Your task to perform on an android device: open chrome and create a bookmark for the current page Image 0: 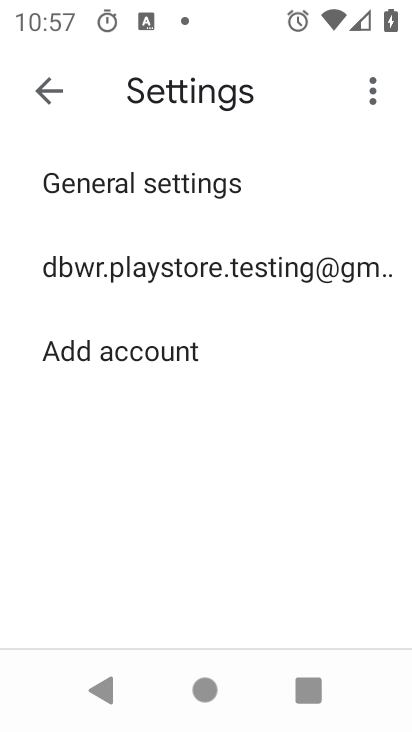
Step 0: press home button
Your task to perform on an android device: open chrome and create a bookmark for the current page Image 1: 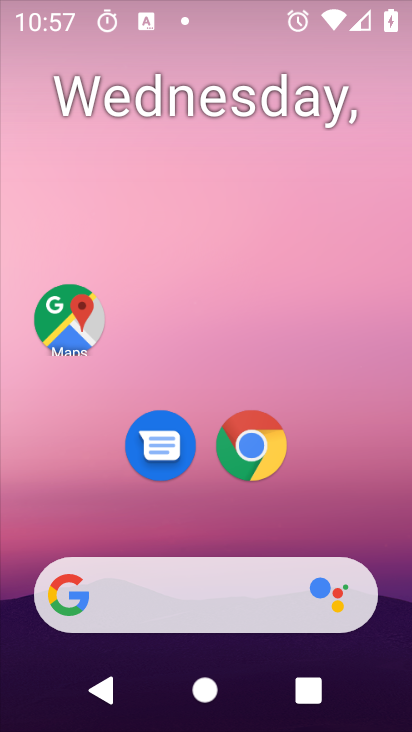
Step 1: drag from (331, 505) to (364, 4)
Your task to perform on an android device: open chrome and create a bookmark for the current page Image 2: 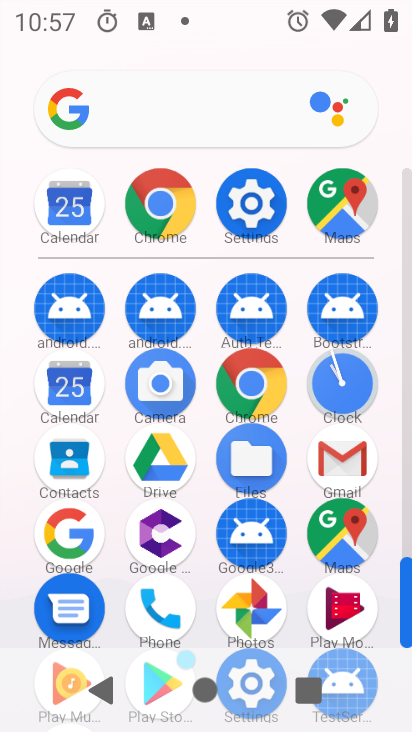
Step 2: click (156, 209)
Your task to perform on an android device: open chrome and create a bookmark for the current page Image 3: 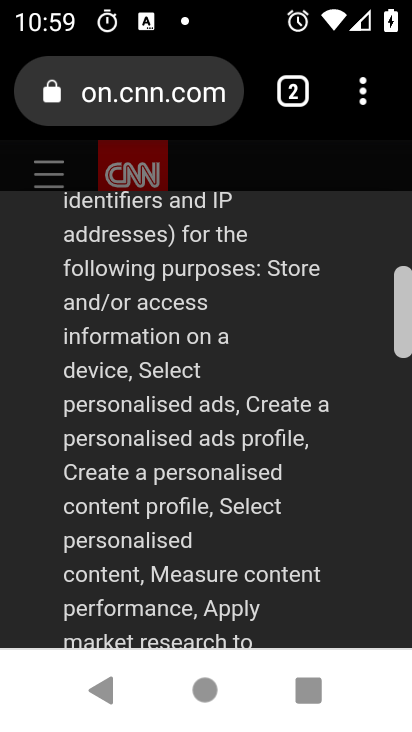
Step 3: task complete